Your task to perform on an android device: turn on javascript in the chrome app Image 0: 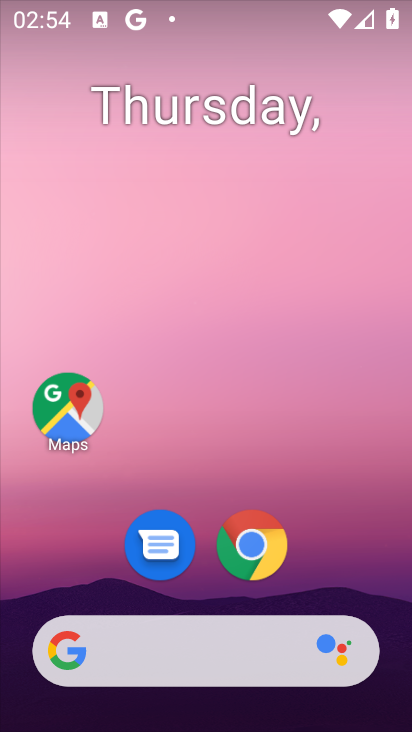
Step 0: drag from (209, 709) to (202, 60)
Your task to perform on an android device: turn on javascript in the chrome app Image 1: 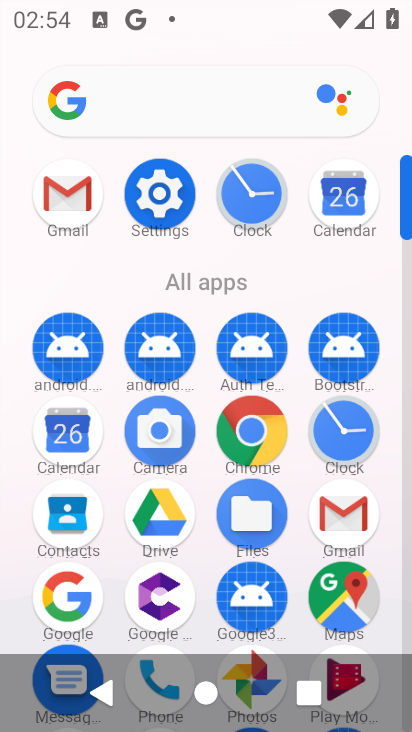
Step 1: click (263, 443)
Your task to perform on an android device: turn on javascript in the chrome app Image 2: 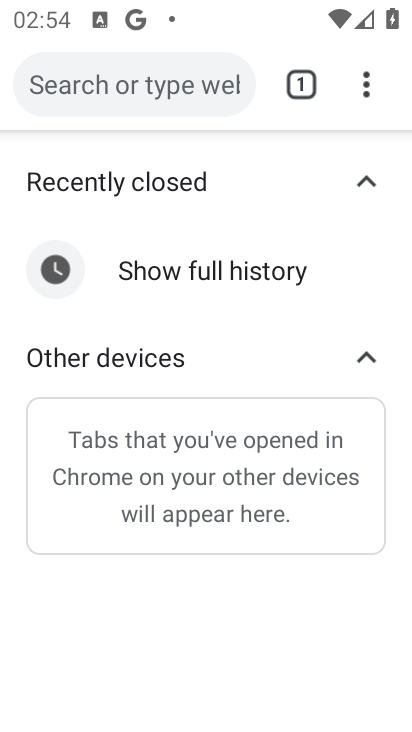
Step 2: click (373, 89)
Your task to perform on an android device: turn on javascript in the chrome app Image 3: 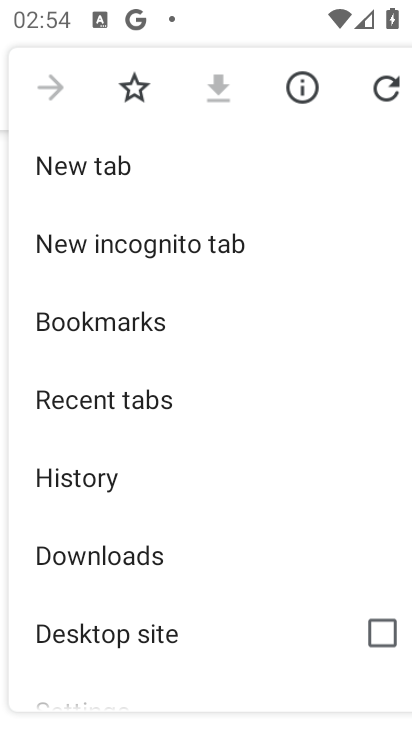
Step 3: click (135, 699)
Your task to perform on an android device: turn on javascript in the chrome app Image 4: 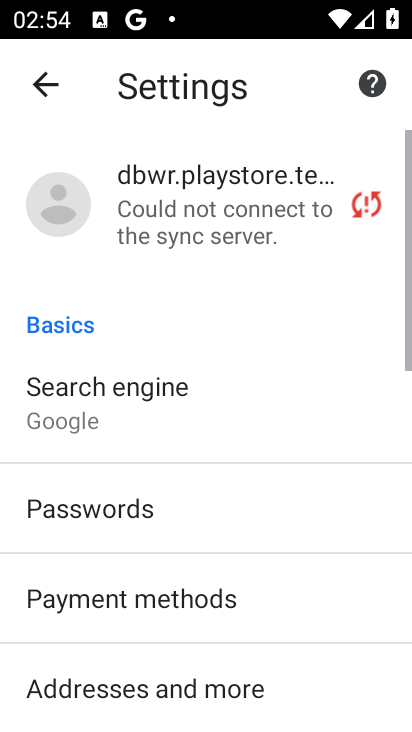
Step 4: drag from (163, 704) to (192, 164)
Your task to perform on an android device: turn on javascript in the chrome app Image 5: 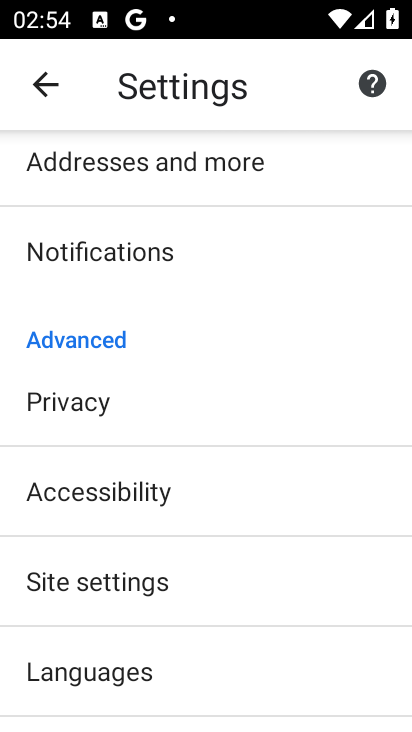
Step 5: click (86, 586)
Your task to perform on an android device: turn on javascript in the chrome app Image 6: 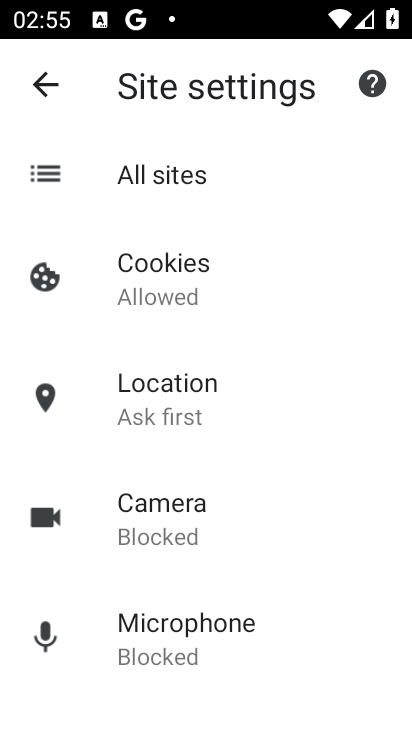
Step 6: drag from (219, 635) to (167, 223)
Your task to perform on an android device: turn on javascript in the chrome app Image 7: 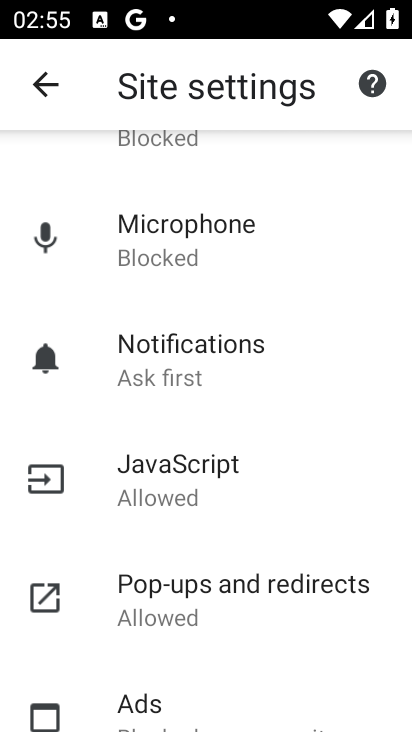
Step 7: click (222, 482)
Your task to perform on an android device: turn on javascript in the chrome app Image 8: 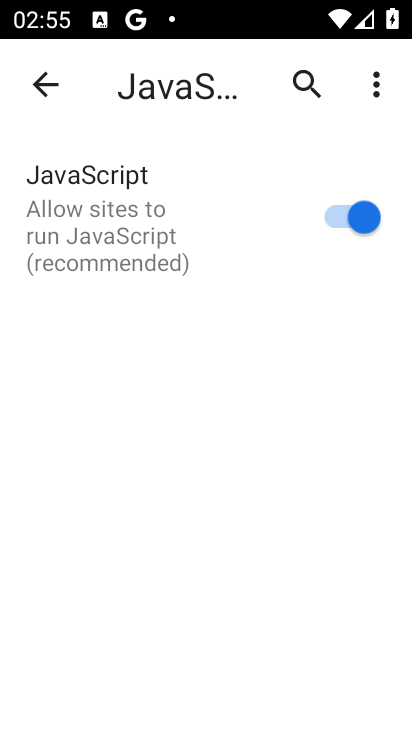
Step 8: task complete